Your task to perform on an android device: toggle priority inbox in the gmail app Image 0: 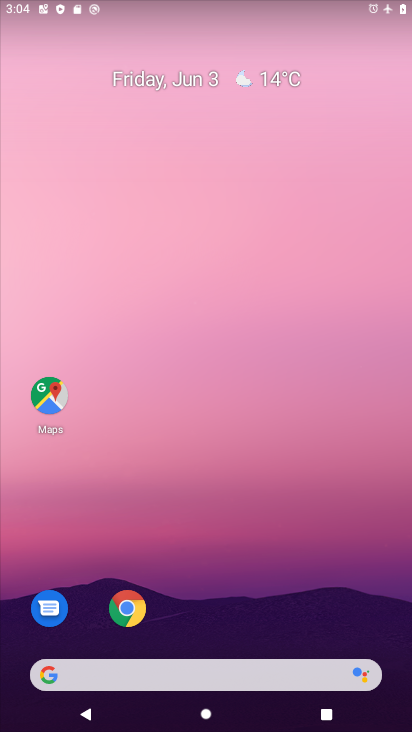
Step 0: drag from (205, 677) to (195, 0)
Your task to perform on an android device: toggle priority inbox in the gmail app Image 1: 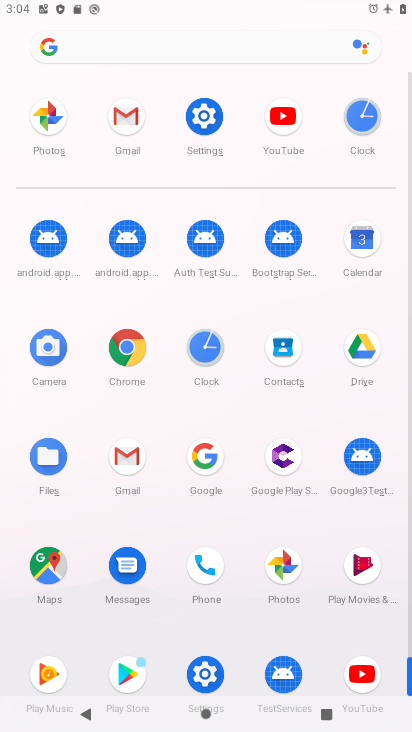
Step 1: click (137, 454)
Your task to perform on an android device: toggle priority inbox in the gmail app Image 2: 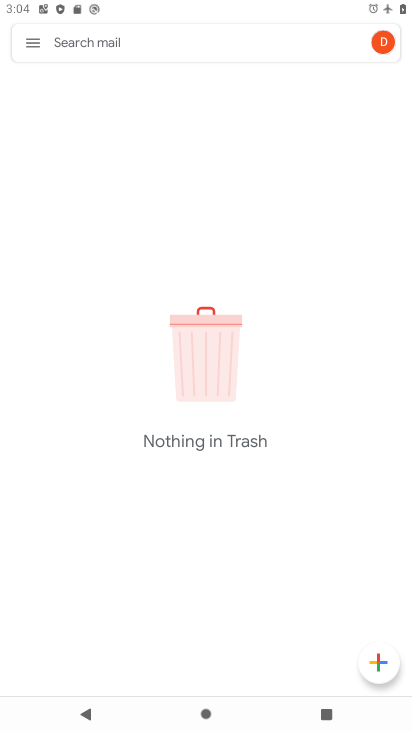
Step 2: click (36, 40)
Your task to perform on an android device: toggle priority inbox in the gmail app Image 3: 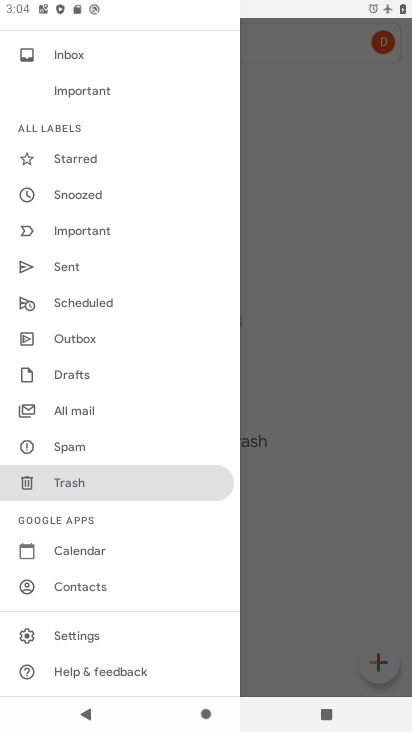
Step 3: click (79, 635)
Your task to perform on an android device: toggle priority inbox in the gmail app Image 4: 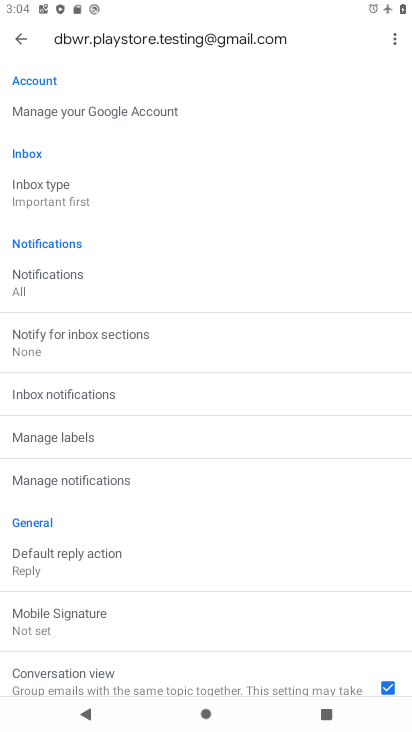
Step 4: click (77, 198)
Your task to perform on an android device: toggle priority inbox in the gmail app Image 5: 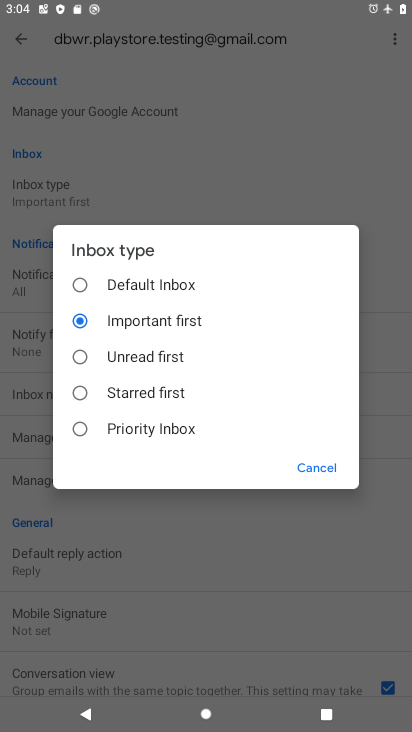
Step 5: click (124, 439)
Your task to perform on an android device: toggle priority inbox in the gmail app Image 6: 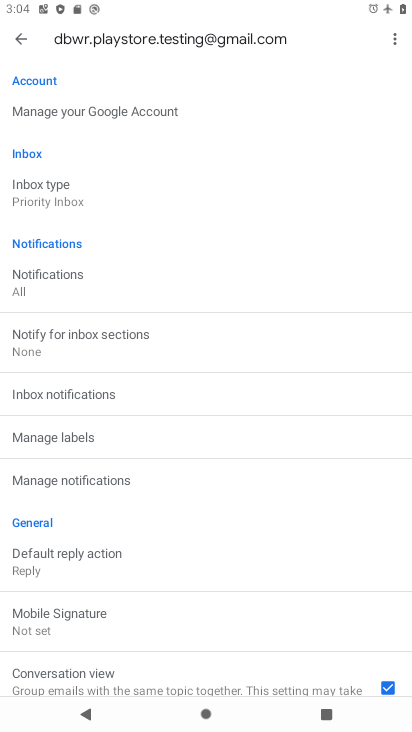
Step 6: task complete